Your task to perform on an android device: Search for sushi restaurants on Maps Image 0: 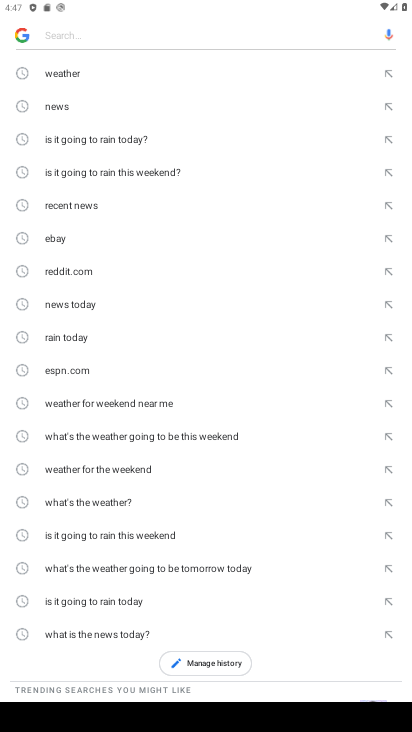
Step 0: press home button
Your task to perform on an android device: Search for sushi restaurants on Maps Image 1: 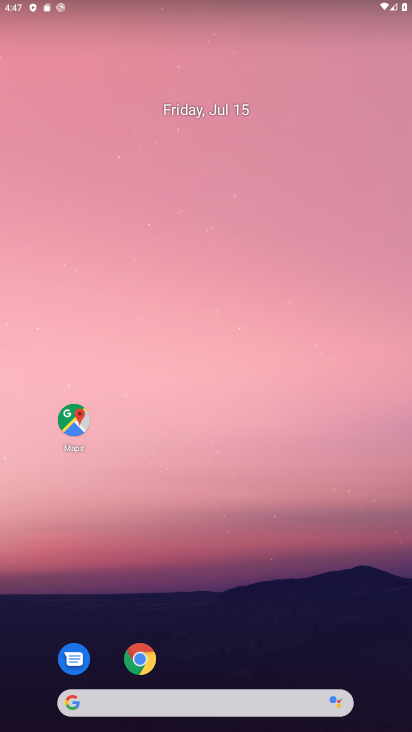
Step 1: drag from (226, 611) to (196, 95)
Your task to perform on an android device: Search for sushi restaurants on Maps Image 2: 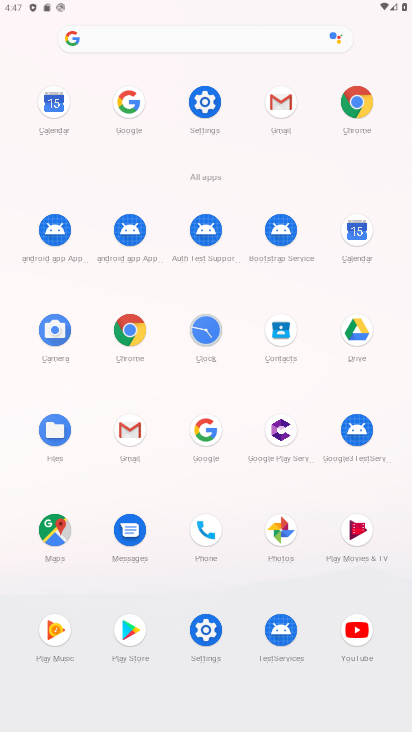
Step 2: click (51, 538)
Your task to perform on an android device: Search for sushi restaurants on Maps Image 3: 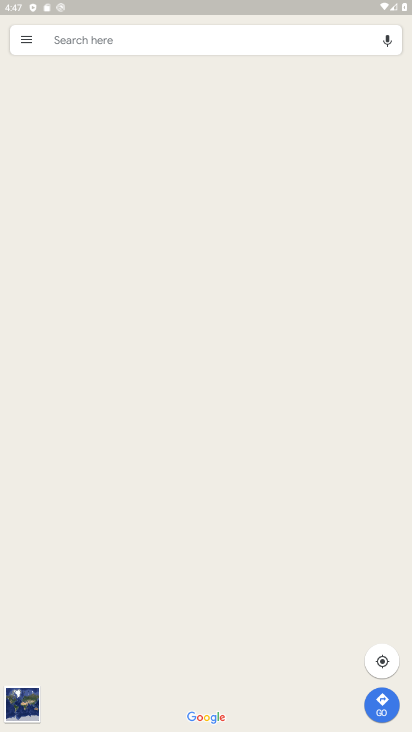
Step 3: click (98, 39)
Your task to perform on an android device: Search for sushi restaurants on Maps Image 4: 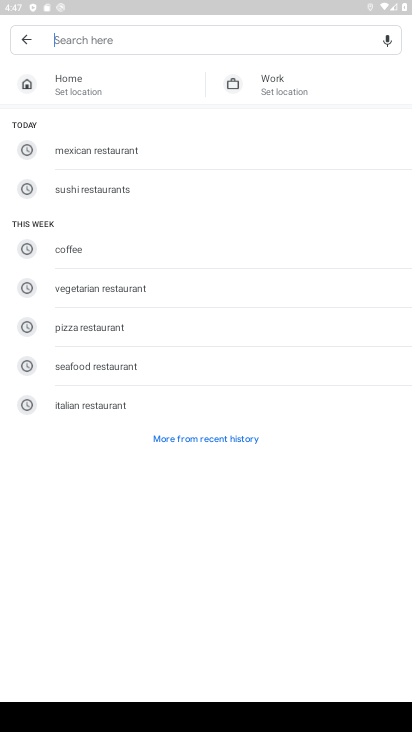
Step 4: click (116, 194)
Your task to perform on an android device: Search for sushi restaurants on Maps Image 5: 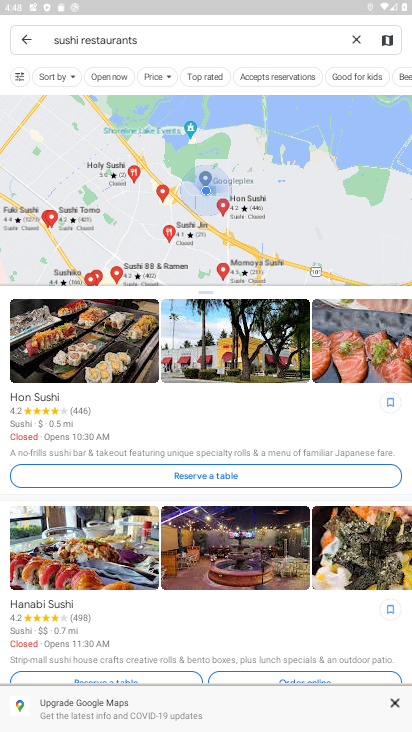
Step 5: task complete